Your task to perform on an android device: open wifi settings Image 0: 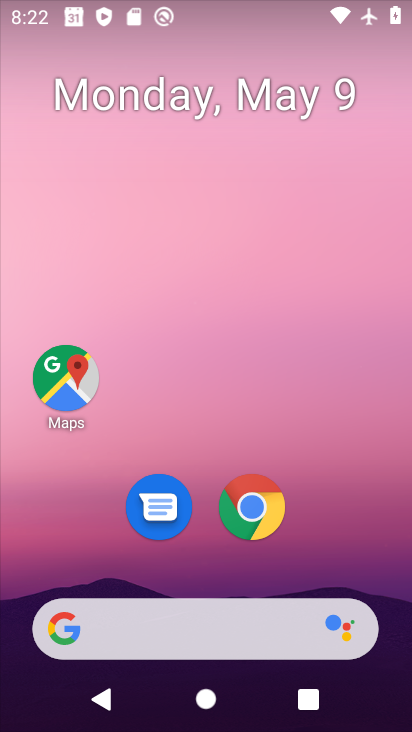
Step 0: drag from (240, 572) to (229, 80)
Your task to perform on an android device: open wifi settings Image 1: 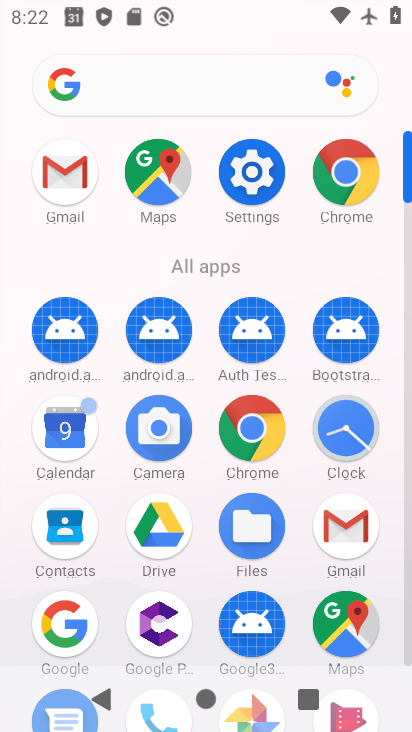
Step 1: click (254, 155)
Your task to perform on an android device: open wifi settings Image 2: 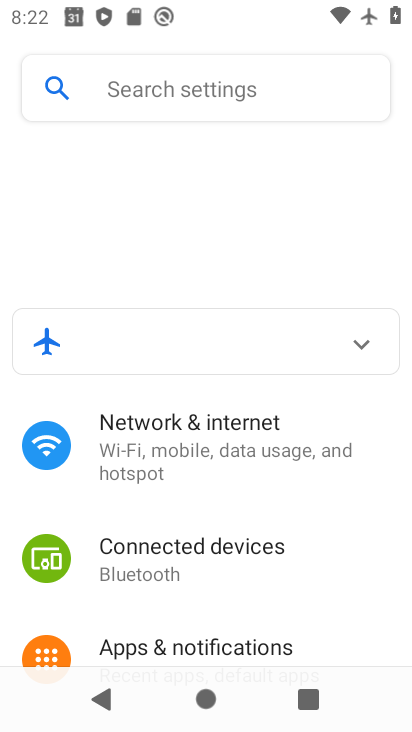
Step 2: click (125, 324)
Your task to perform on an android device: open wifi settings Image 3: 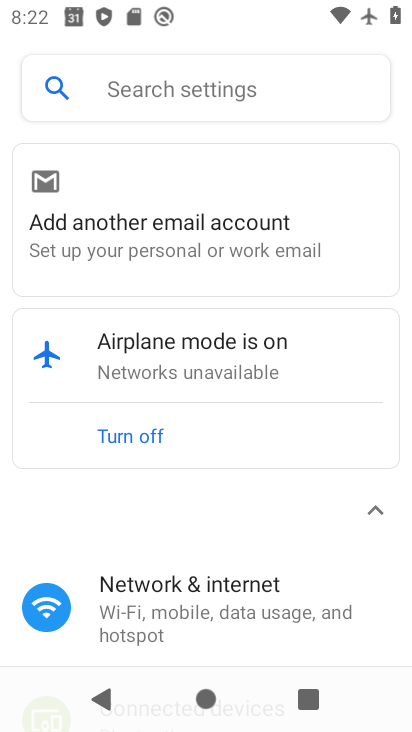
Step 3: click (99, 601)
Your task to perform on an android device: open wifi settings Image 4: 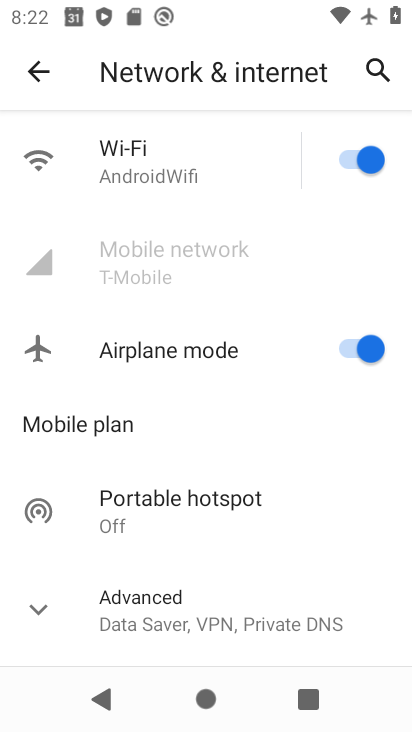
Step 4: click (142, 177)
Your task to perform on an android device: open wifi settings Image 5: 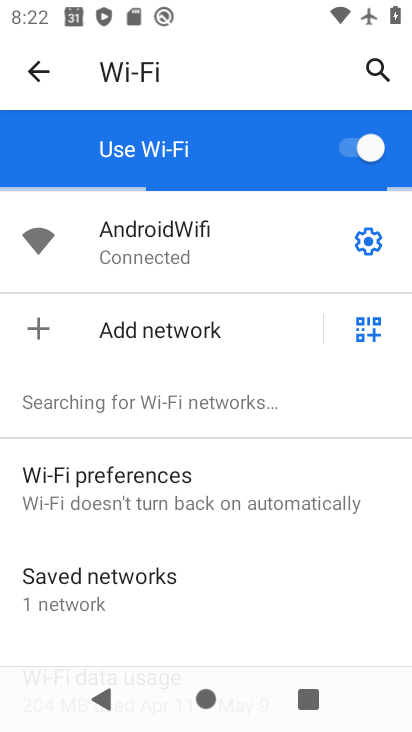
Step 5: task complete